Your task to perform on an android device: Go to internet settings Image 0: 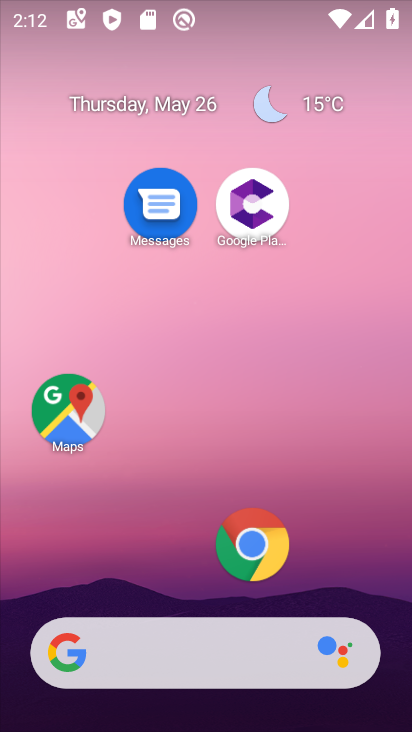
Step 0: drag from (223, 27) to (284, 452)
Your task to perform on an android device: Go to internet settings Image 1: 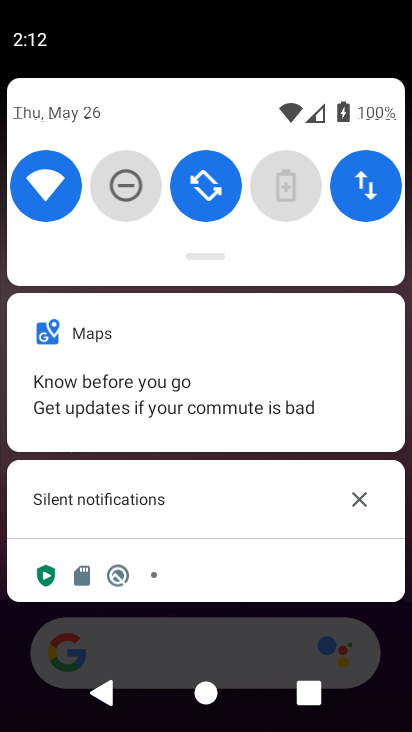
Step 1: click (362, 180)
Your task to perform on an android device: Go to internet settings Image 2: 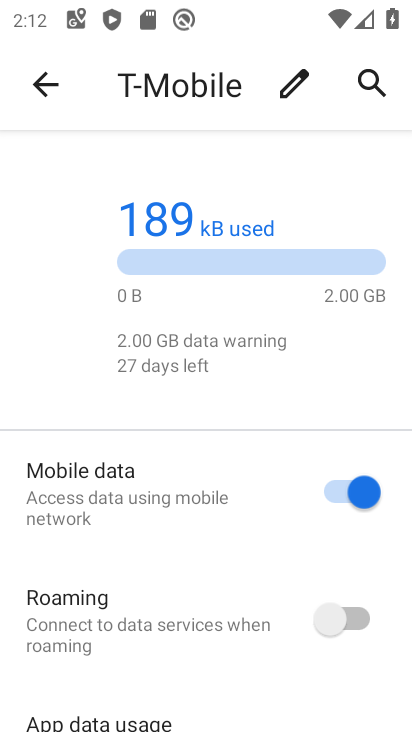
Step 2: task complete